Your task to perform on an android device: toggle notifications settings in the gmail app Image 0: 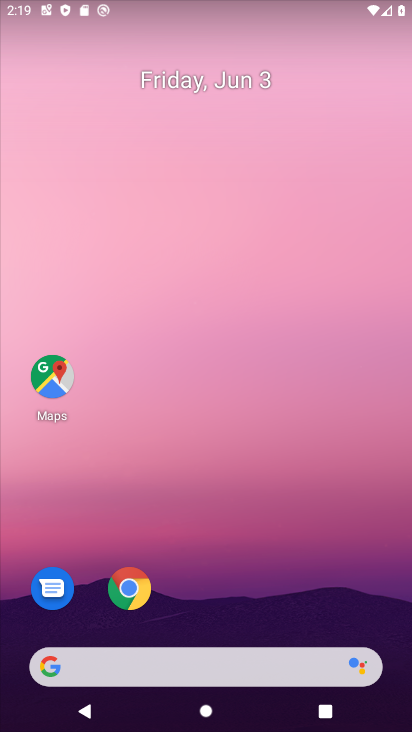
Step 0: drag from (282, 615) to (287, 187)
Your task to perform on an android device: toggle notifications settings in the gmail app Image 1: 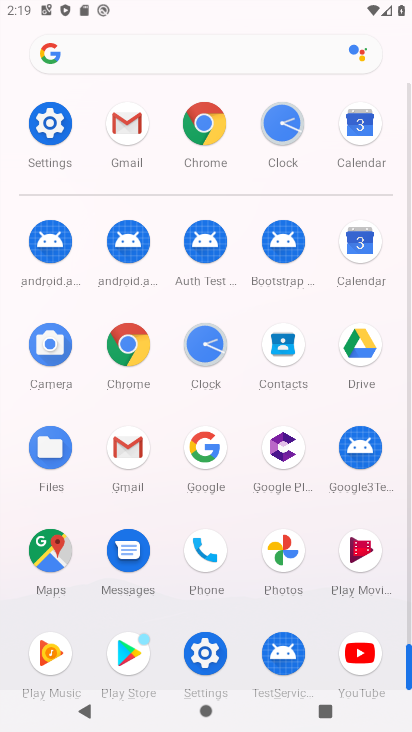
Step 1: click (138, 467)
Your task to perform on an android device: toggle notifications settings in the gmail app Image 2: 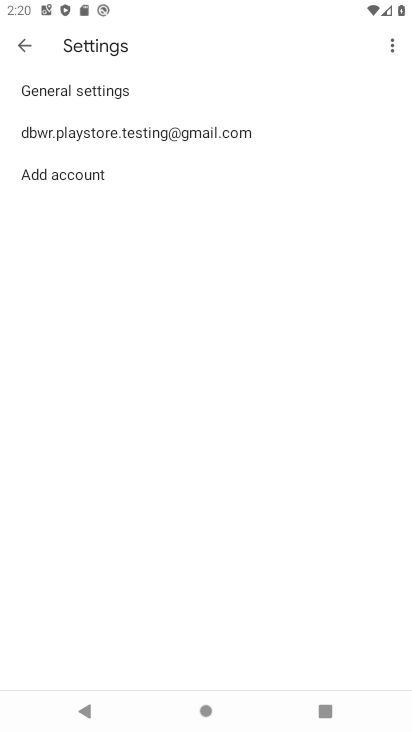
Step 2: click (204, 134)
Your task to perform on an android device: toggle notifications settings in the gmail app Image 3: 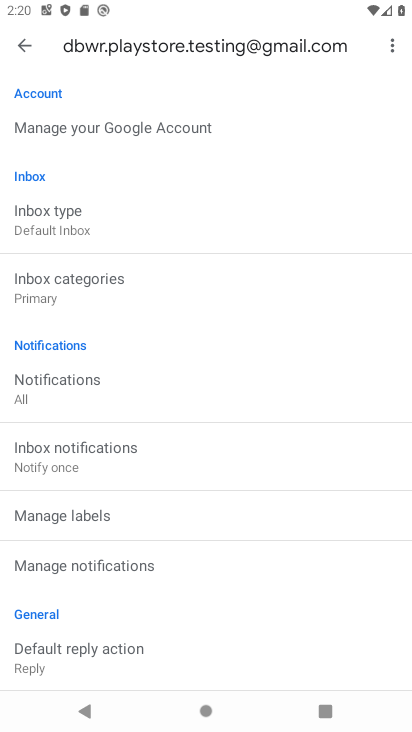
Step 3: click (107, 568)
Your task to perform on an android device: toggle notifications settings in the gmail app Image 4: 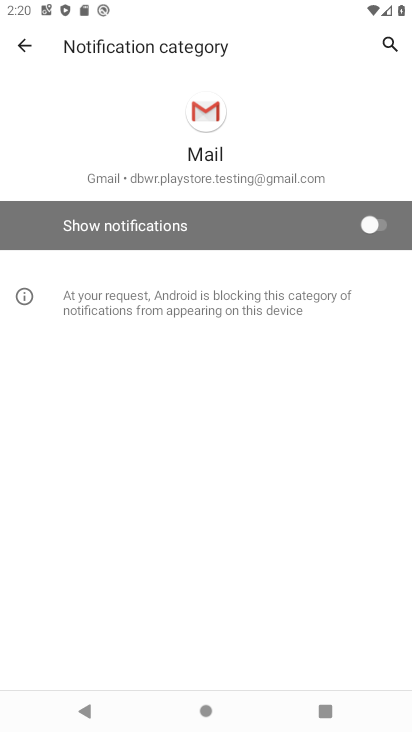
Step 4: click (370, 232)
Your task to perform on an android device: toggle notifications settings in the gmail app Image 5: 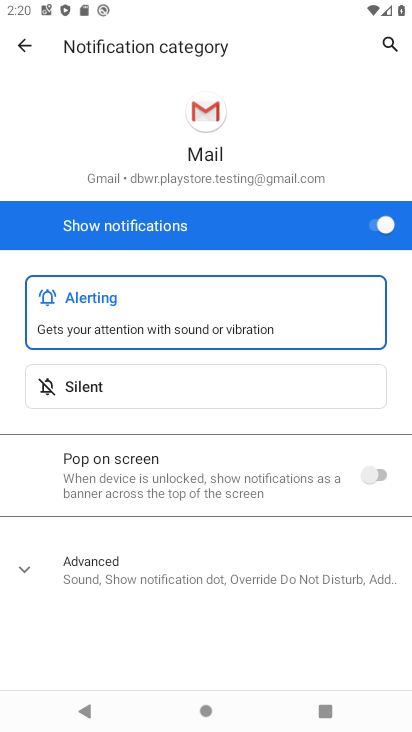
Step 5: task complete